Your task to perform on an android device: open app "LiveIn - Share Your Moment" (install if not already installed) Image 0: 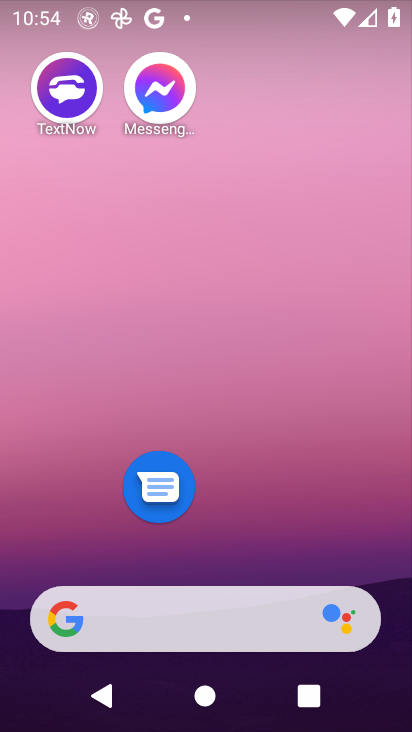
Step 0: drag from (74, 316) to (53, 166)
Your task to perform on an android device: open app "LiveIn - Share Your Moment" (install if not already installed) Image 1: 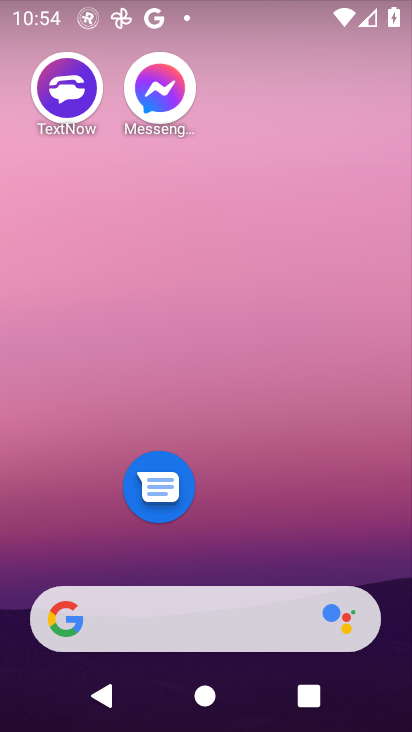
Step 1: drag from (216, 628) to (198, 299)
Your task to perform on an android device: open app "LiveIn - Share Your Moment" (install if not already installed) Image 2: 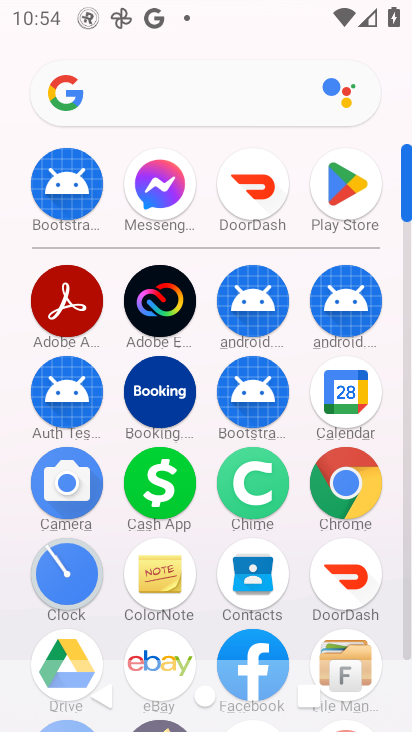
Step 2: click (316, 179)
Your task to perform on an android device: open app "LiveIn - Share Your Moment" (install if not already installed) Image 3: 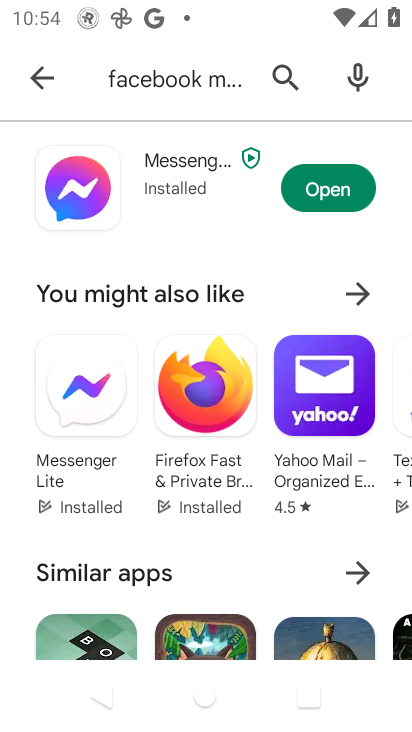
Step 3: click (42, 73)
Your task to perform on an android device: open app "LiveIn - Share Your Moment" (install if not already installed) Image 4: 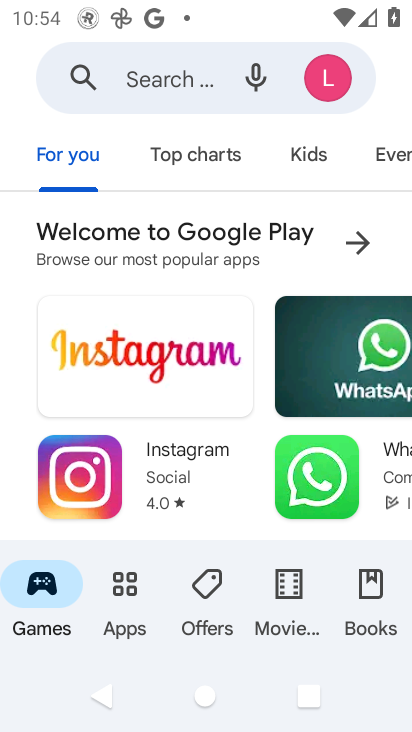
Step 4: click (128, 78)
Your task to perform on an android device: open app "LiveIn - Share Your Moment" (install if not already installed) Image 5: 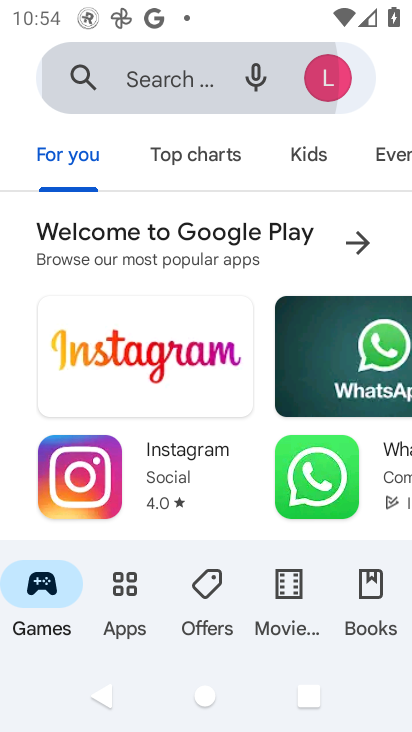
Step 5: click (136, 78)
Your task to perform on an android device: open app "LiveIn - Share Your Moment" (install if not already installed) Image 6: 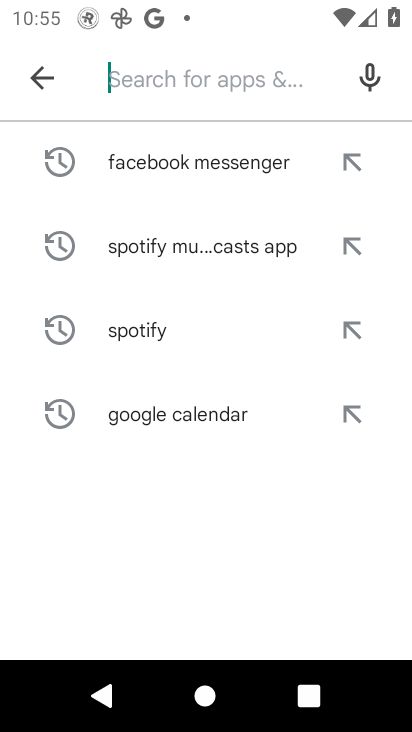
Step 6: type ""LiveIn - Share Your Moment" "
Your task to perform on an android device: open app "LiveIn - Share Your Moment" (install if not already installed) Image 7: 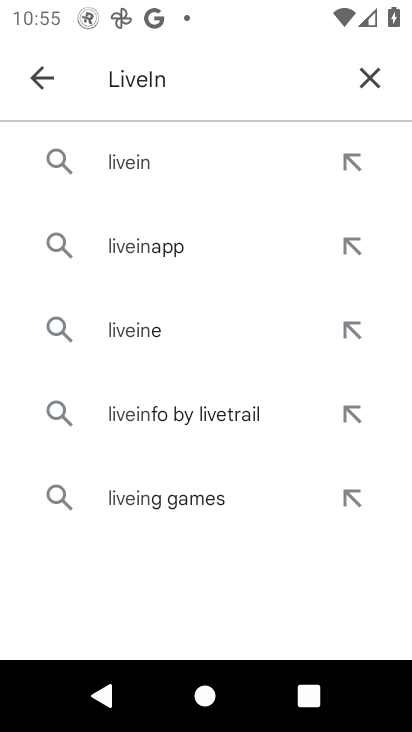
Step 7: click (147, 163)
Your task to perform on an android device: open app "LiveIn - Share Your Moment" (install if not already installed) Image 8: 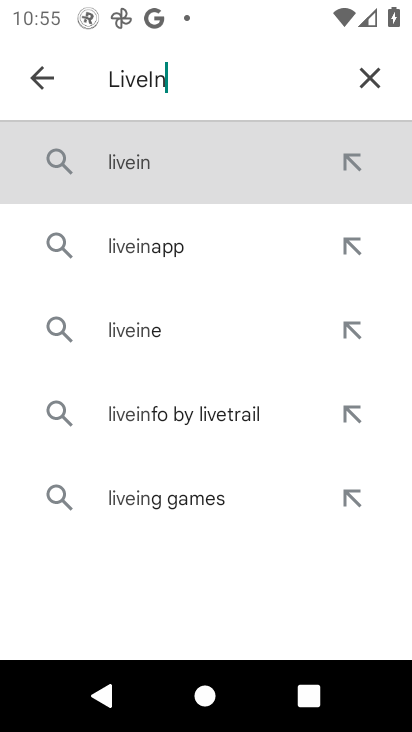
Step 8: click (147, 163)
Your task to perform on an android device: open app "LiveIn - Share Your Moment" (install if not already installed) Image 9: 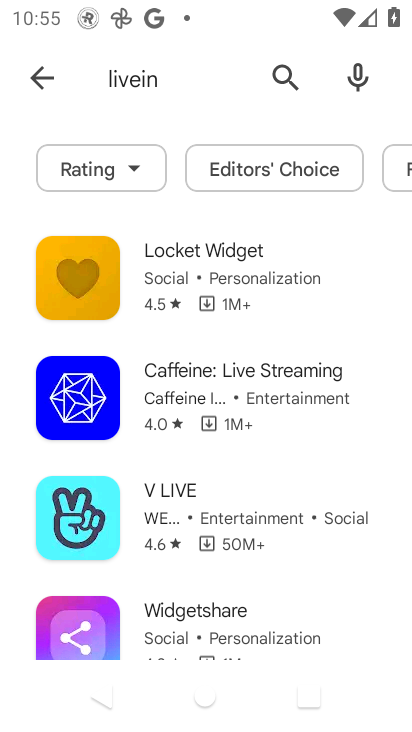
Step 9: drag from (210, 434) to (210, 279)
Your task to perform on an android device: open app "LiveIn - Share Your Moment" (install if not already installed) Image 10: 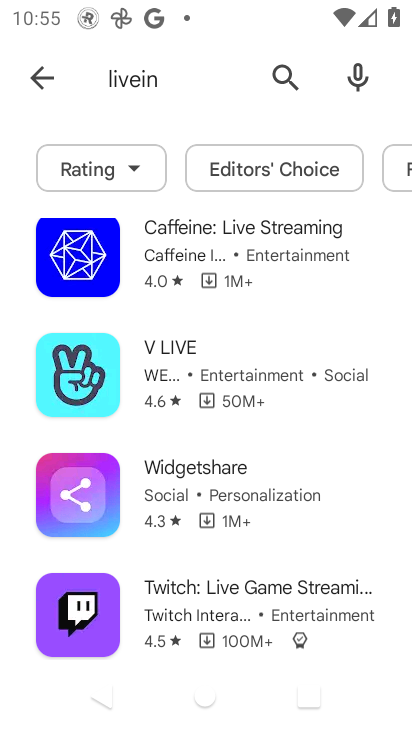
Step 10: drag from (214, 507) to (242, 369)
Your task to perform on an android device: open app "LiveIn - Share Your Moment" (install if not already installed) Image 11: 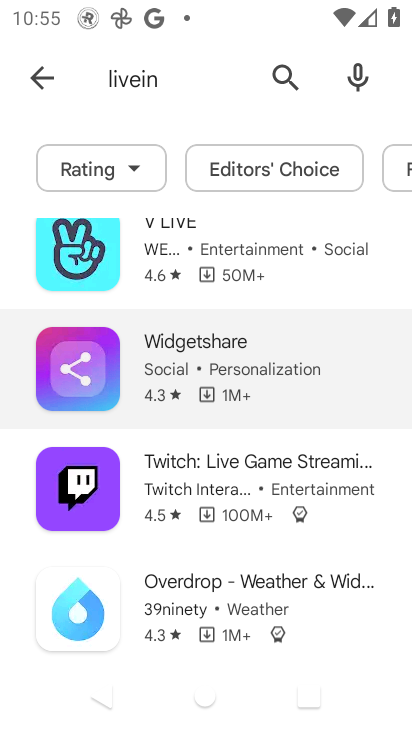
Step 11: drag from (226, 477) to (259, 249)
Your task to perform on an android device: open app "LiveIn - Share Your Moment" (install if not already installed) Image 12: 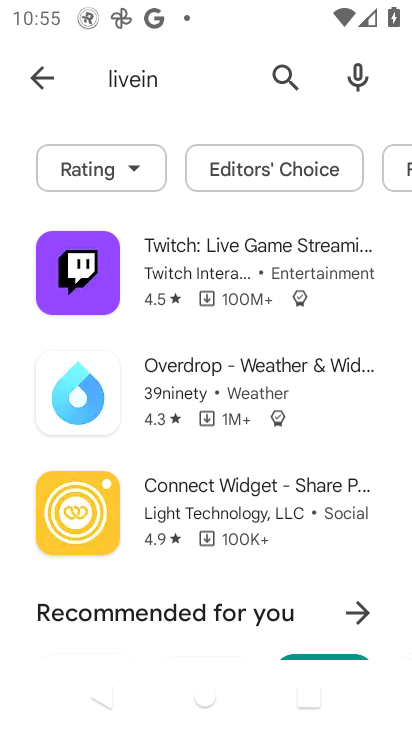
Step 12: drag from (239, 324) to (239, 230)
Your task to perform on an android device: open app "LiveIn - Share Your Moment" (install if not already installed) Image 13: 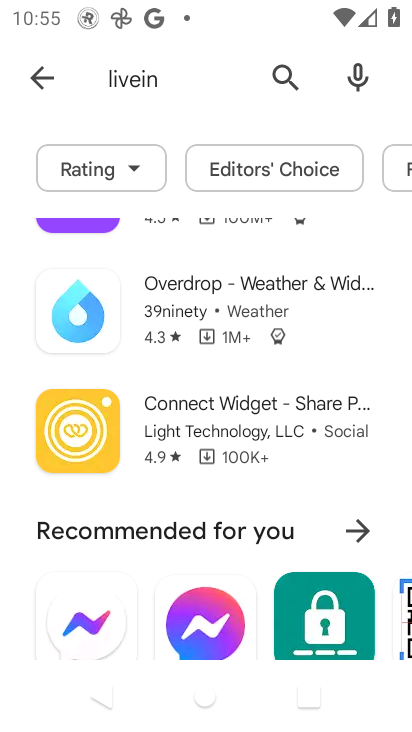
Step 13: drag from (239, 162) to (239, 686)
Your task to perform on an android device: open app "LiveIn - Share Your Moment" (install if not already installed) Image 14: 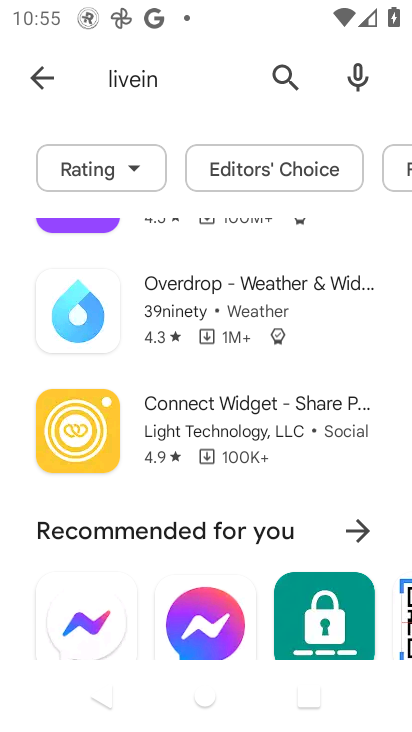
Step 14: drag from (161, 356) to (109, 729)
Your task to perform on an android device: open app "LiveIn - Share Your Moment" (install if not already installed) Image 15: 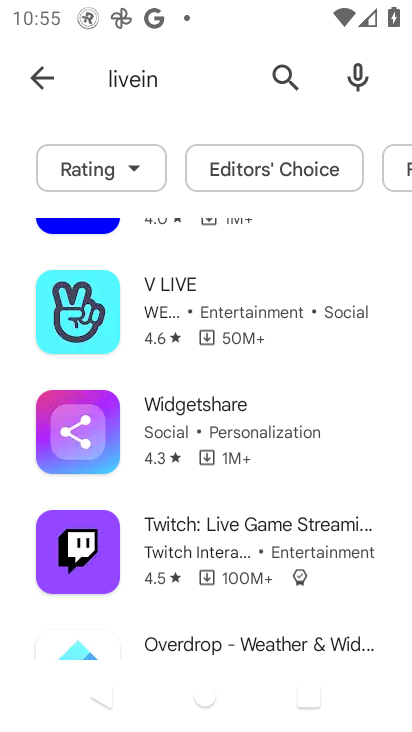
Step 15: drag from (131, 591) to (145, 725)
Your task to perform on an android device: open app "LiveIn - Share Your Moment" (install if not already installed) Image 16: 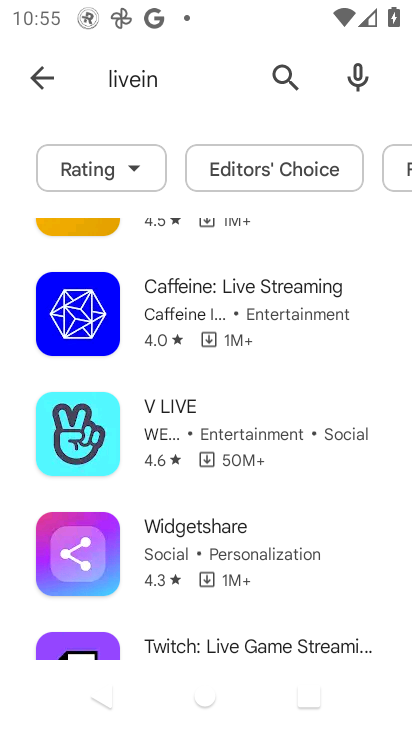
Step 16: drag from (205, 684) to (331, 722)
Your task to perform on an android device: open app "LiveIn - Share Your Moment" (install if not already installed) Image 17: 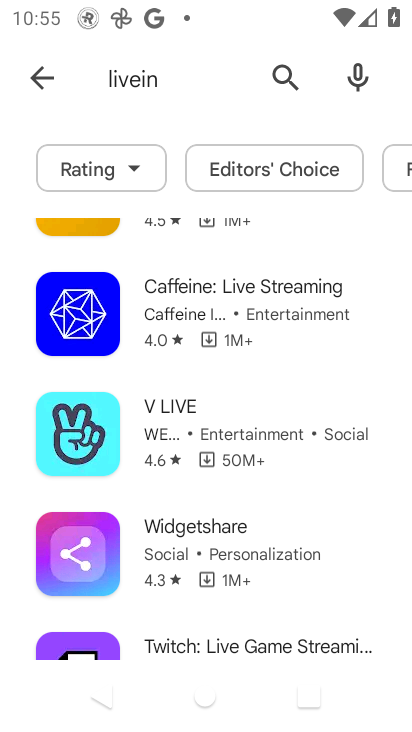
Step 17: drag from (354, 687) to (373, 725)
Your task to perform on an android device: open app "LiveIn - Share Your Moment" (install if not already installed) Image 18: 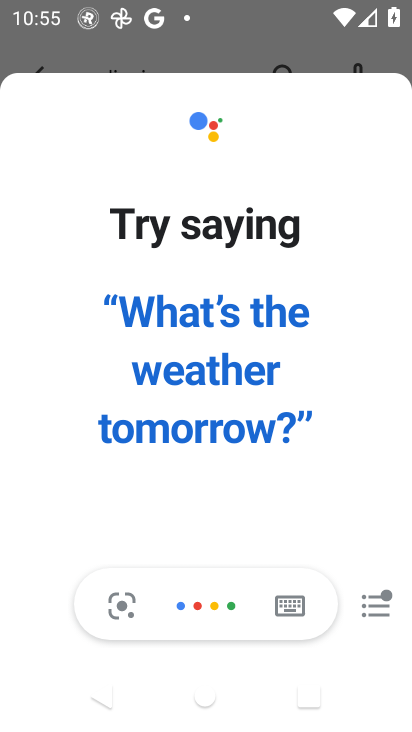
Step 18: drag from (263, 311) to (327, 588)
Your task to perform on an android device: open app "LiveIn - Share Your Moment" (install if not already installed) Image 19: 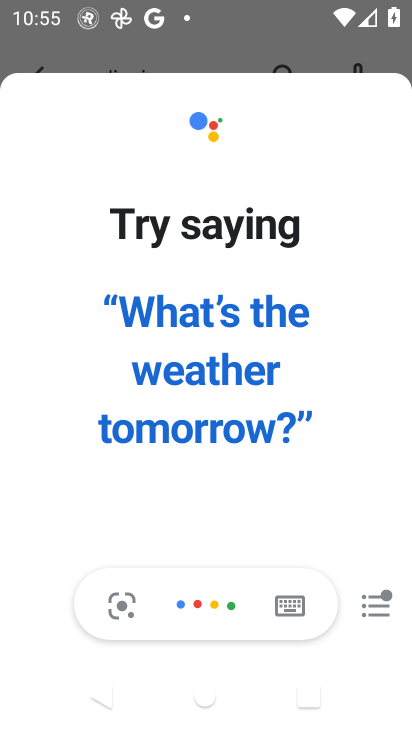
Step 19: click (265, 45)
Your task to perform on an android device: open app "LiveIn - Share Your Moment" (install if not already installed) Image 20: 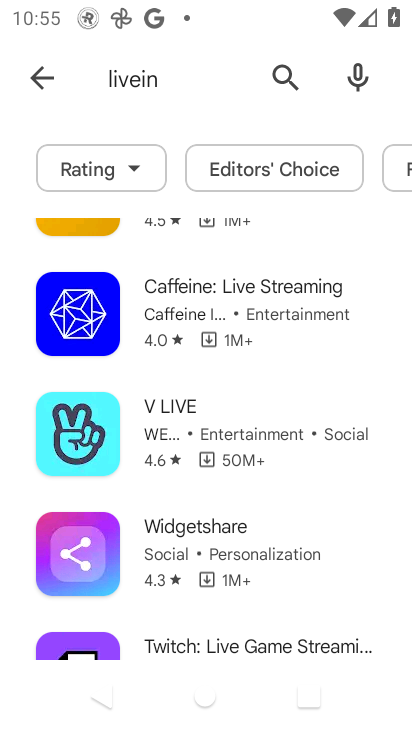
Step 20: click (268, 57)
Your task to perform on an android device: open app "LiveIn - Share Your Moment" (install if not already installed) Image 21: 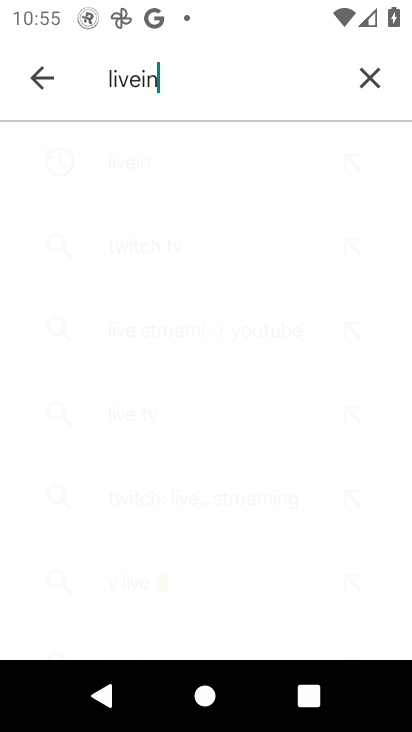
Step 21: click (48, 75)
Your task to perform on an android device: open app "LiveIn - Share Your Moment" (install if not already installed) Image 22: 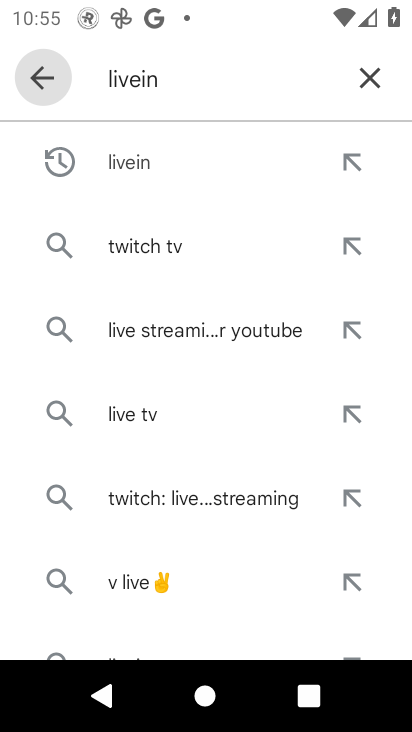
Step 22: click (48, 79)
Your task to perform on an android device: open app "LiveIn - Share Your Moment" (install if not already installed) Image 23: 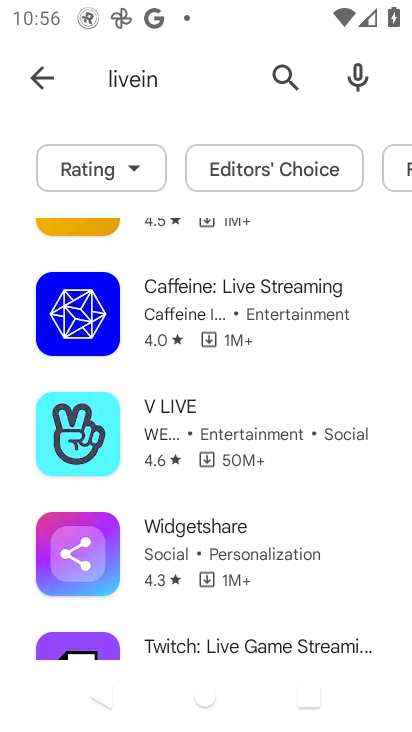
Step 23: task complete